Your task to perform on an android device: Open Chrome and go to settings Image 0: 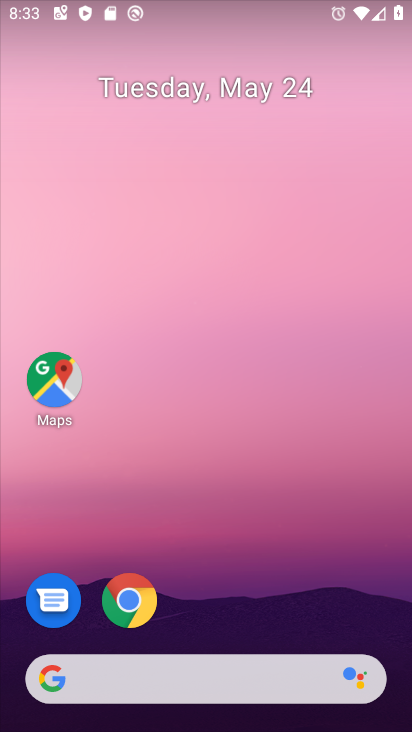
Step 0: click (135, 601)
Your task to perform on an android device: Open Chrome and go to settings Image 1: 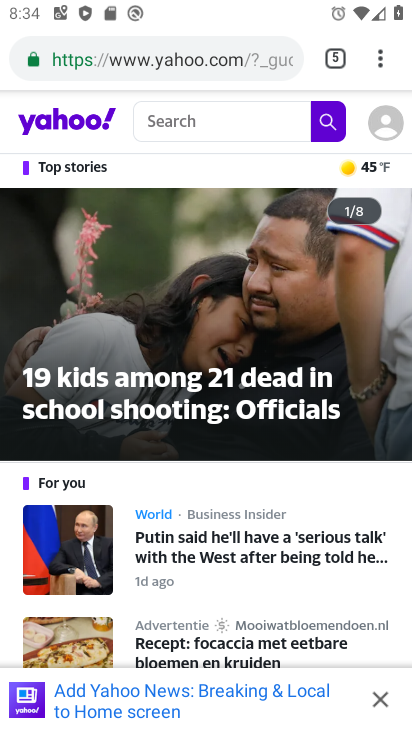
Step 1: click (382, 63)
Your task to perform on an android device: Open Chrome and go to settings Image 2: 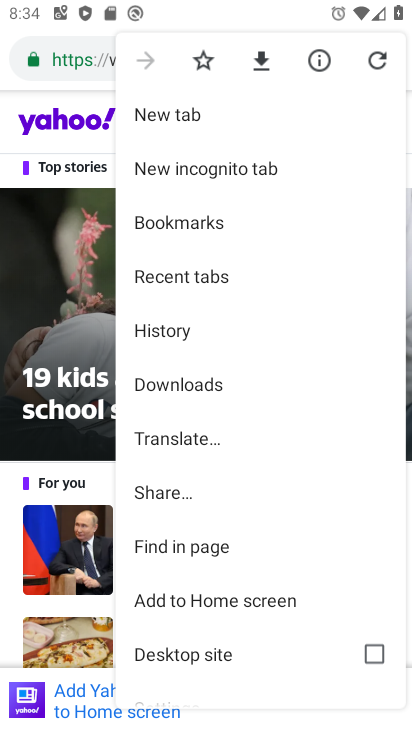
Step 2: drag from (211, 609) to (211, 311)
Your task to perform on an android device: Open Chrome and go to settings Image 3: 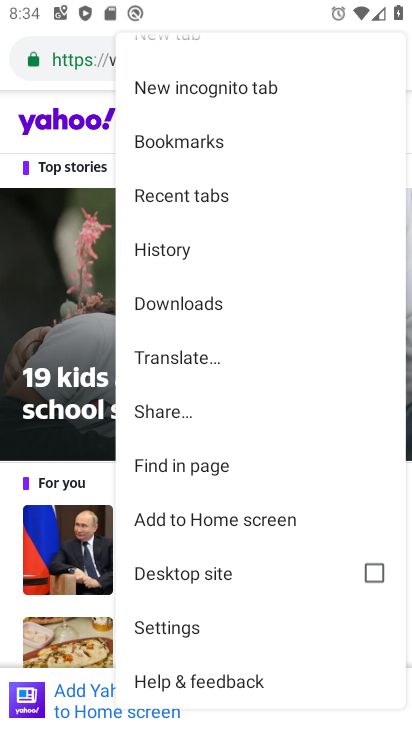
Step 3: click (194, 626)
Your task to perform on an android device: Open Chrome and go to settings Image 4: 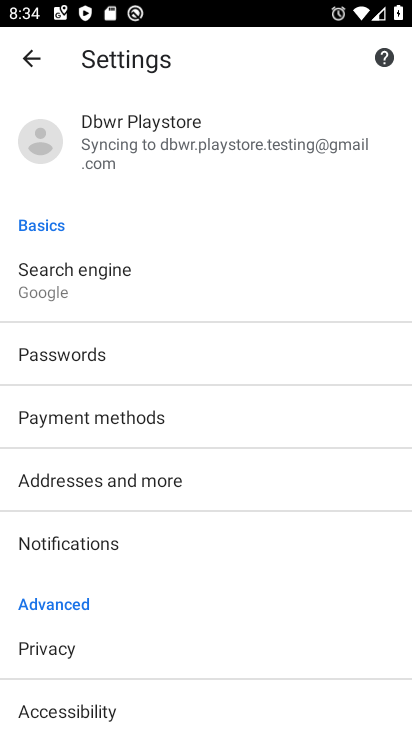
Step 4: task complete